Your task to perform on an android device: Open the phone app and click the voicemail tab. Image 0: 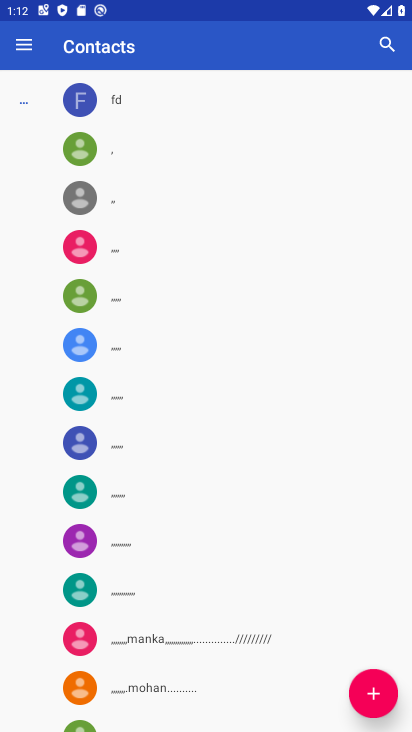
Step 0: press home button
Your task to perform on an android device: Open the phone app and click the voicemail tab. Image 1: 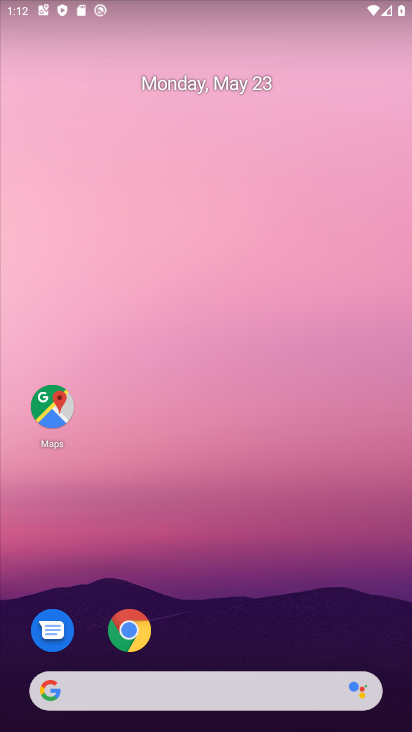
Step 1: drag from (323, 633) to (334, 255)
Your task to perform on an android device: Open the phone app and click the voicemail tab. Image 2: 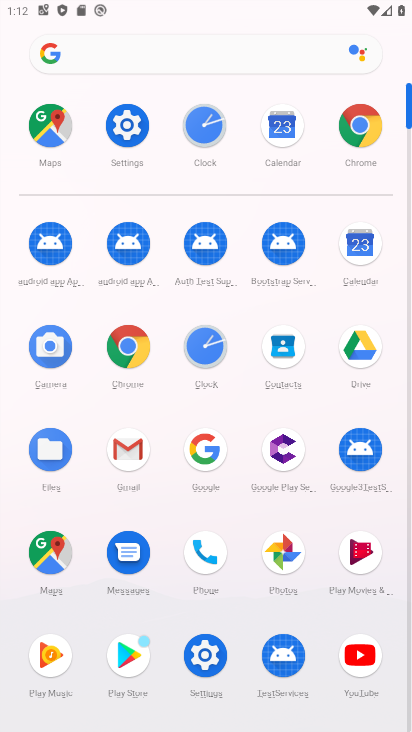
Step 2: click (210, 557)
Your task to perform on an android device: Open the phone app and click the voicemail tab. Image 3: 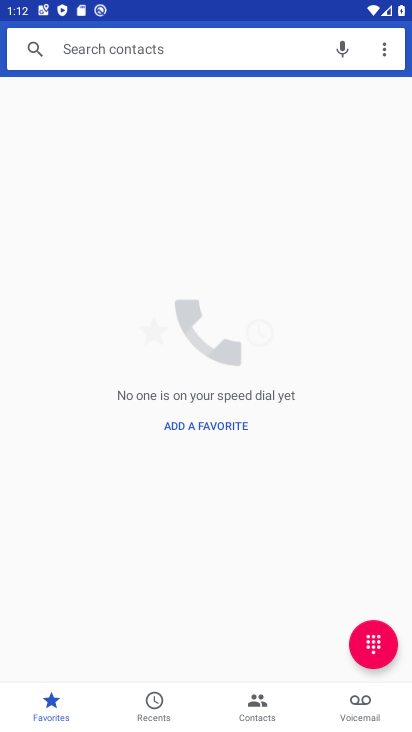
Step 3: click (360, 709)
Your task to perform on an android device: Open the phone app and click the voicemail tab. Image 4: 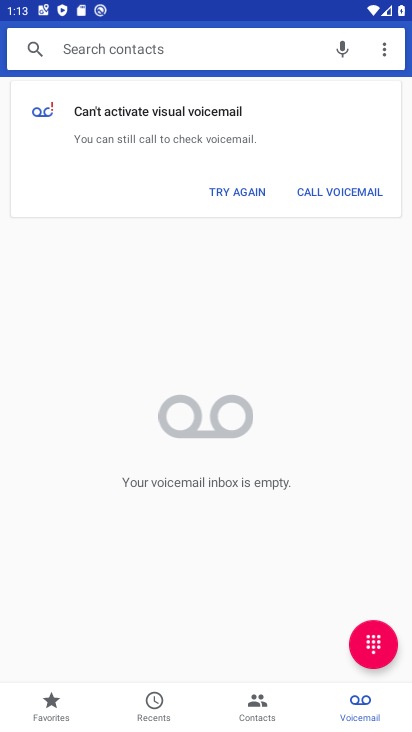
Step 4: task complete